Your task to perform on an android device: Go to privacy settings Image 0: 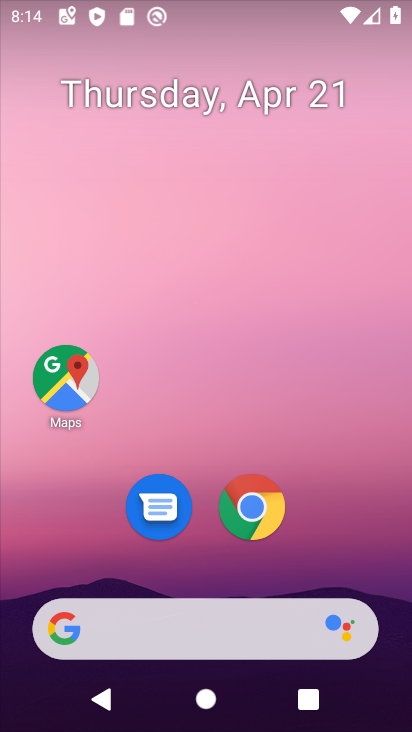
Step 0: drag from (376, 487) to (388, 150)
Your task to perform on an android device: Go to privacy settings Image 1: 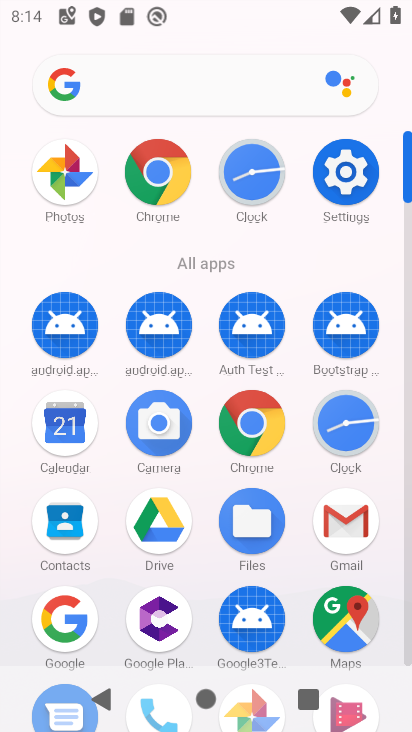
Step 1: click (347, 179)
Your task to perform on an android device: Go to privacy settings Image 2: 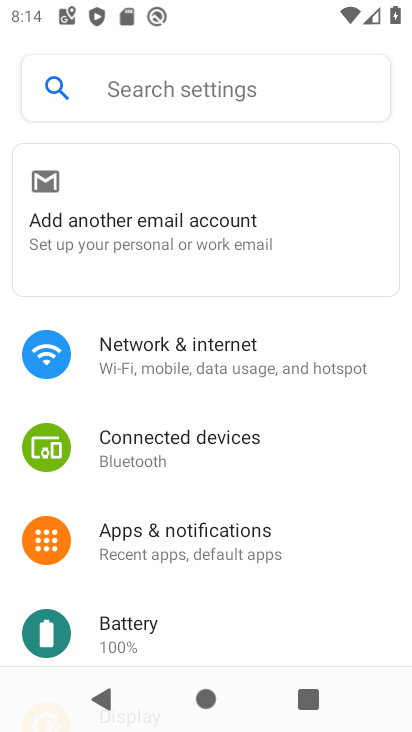
Step 2: drag from (287, 540) to (302, 258)
Your task to perform on an android device: Go to privacy settings Image 3: 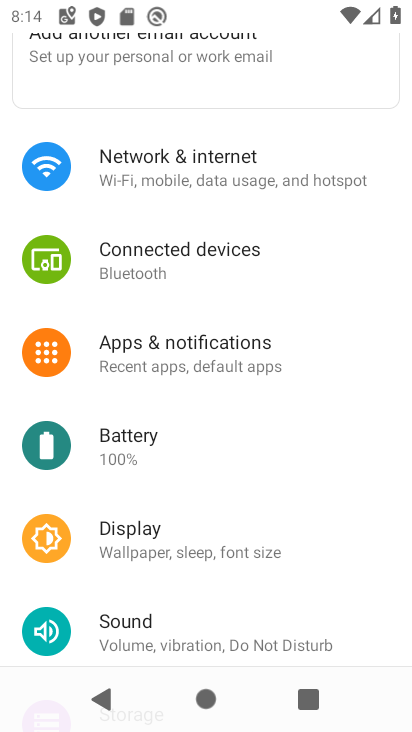
Step 3: drag from (312, 538) to (322, 296)
Your task to perform on an android device: Go to privacy settings Image 4: 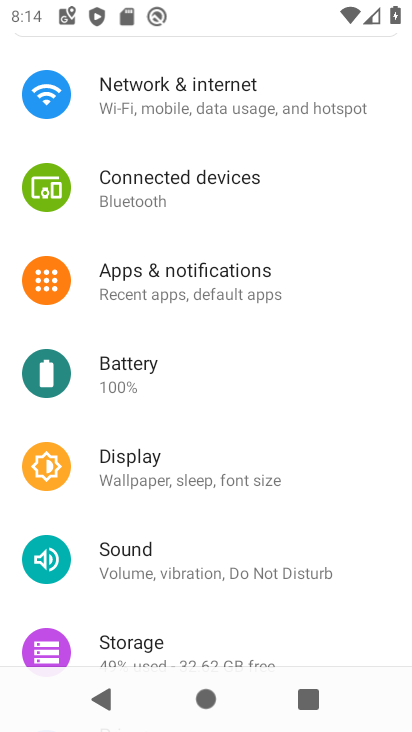
Step 4: drag from (251, 487) to (284, 285)
Your task to perform on an android device: Go to privacy settings Image 5: 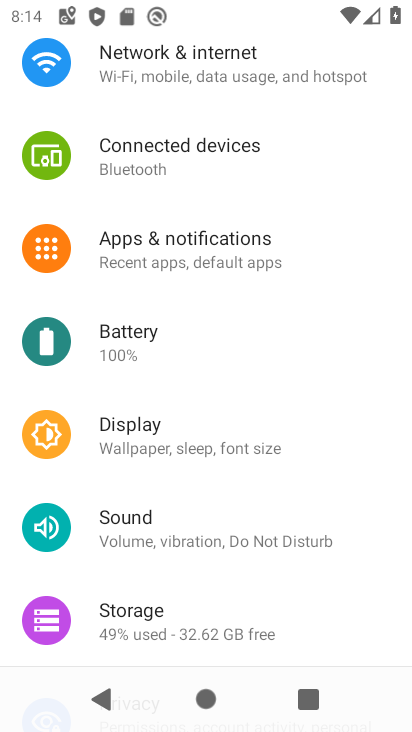
Step 5: drag from (228, 494) to (275, 268)
Your task to perform on an android device: Go to privacy settings Image 6: 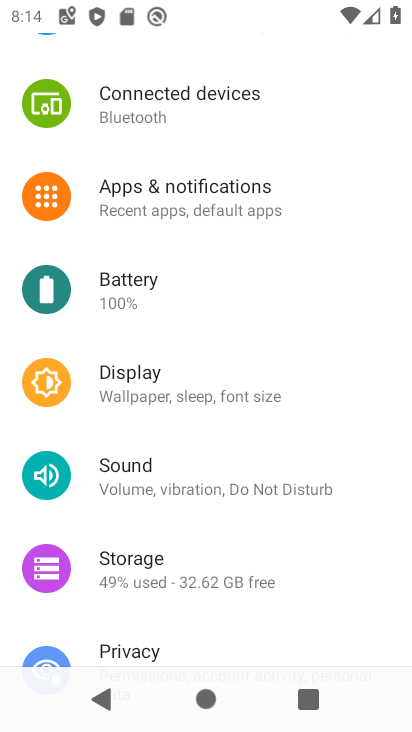
Step 6: drag from (202, 633) to (283, 283)
Your task to perform on an android device: Go to privacy settings Image 7: 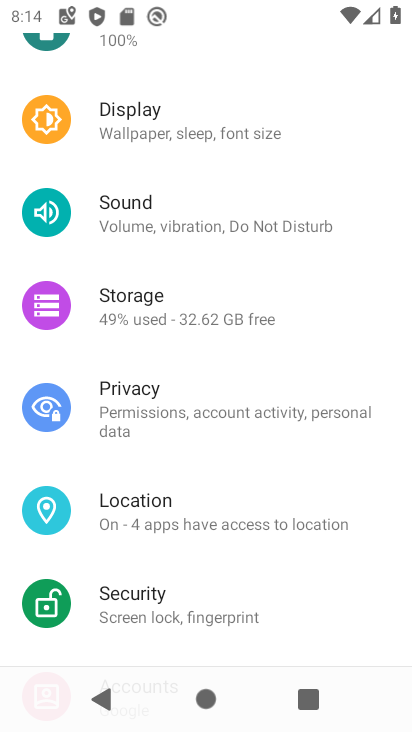
Step 7: click (180, 415)
Your task to perform on an android device: Go to privacy settings Image 8: 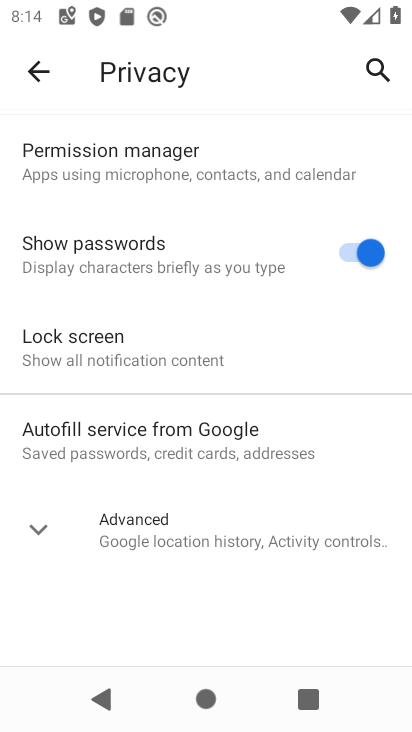
Step 8: task complete